Your task to perform on an android device: toggle location history Image 0: 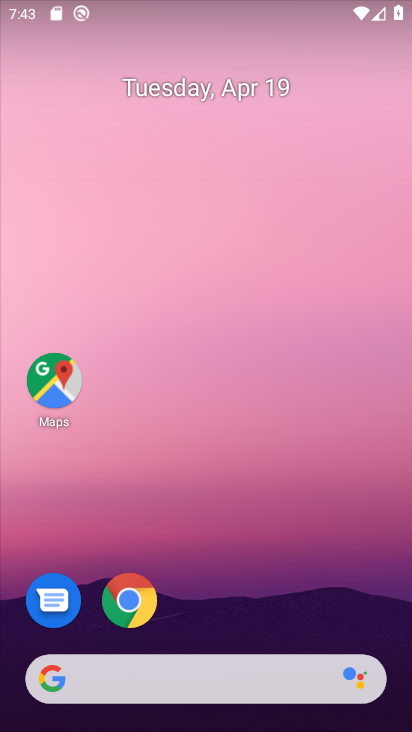
Step 0: drag from (367, 604) to (340, 80)
Your task to perform on an android device: toggle location history Image 1: 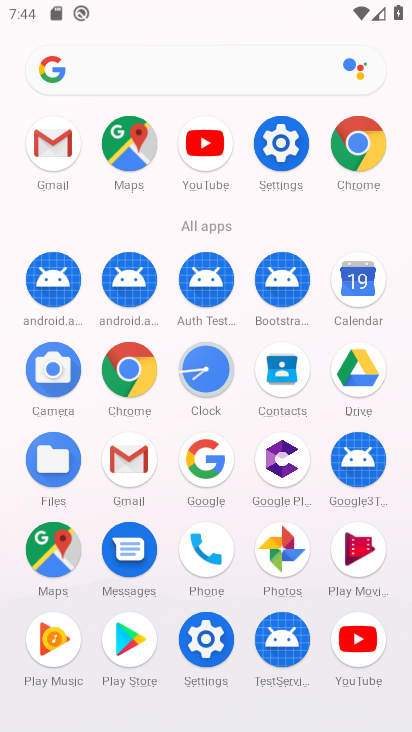
Step 1: click (289, 149)
Your task to perform on an android device: toggle location history Image 2: 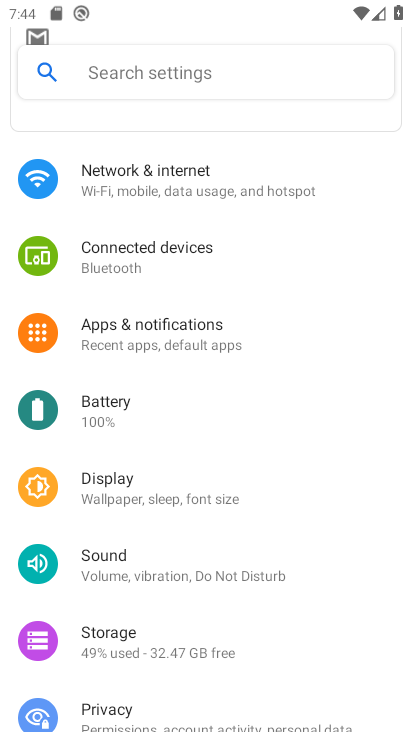
Step 2: drag from (347, 598) to (368, 373)
Your task to perform on an android device: toggle location history Image 3: 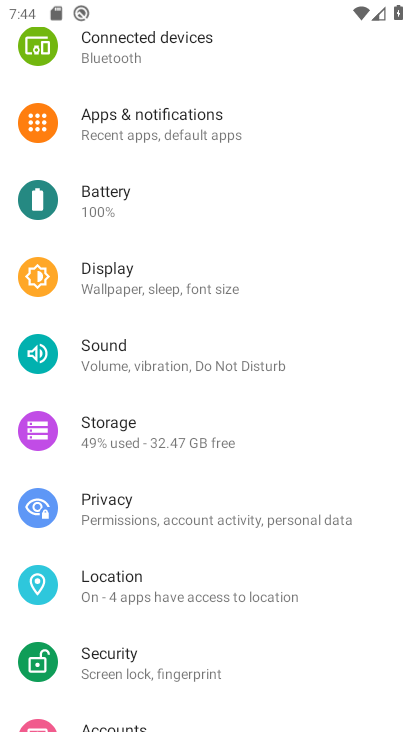
Step 3: drag from (368, 620) to (382, 405)
Your task to perform on an android device: toggle location history Image 4: 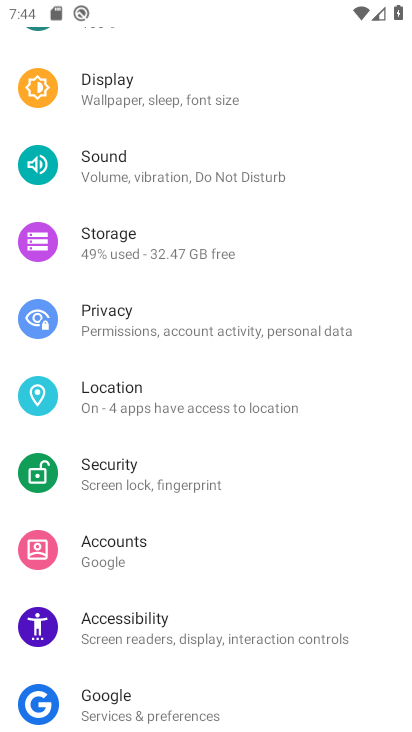
Step 4: drag from (371, 629) to (375, 401)
Your task to perform on an android device: toggle location history Image 5: 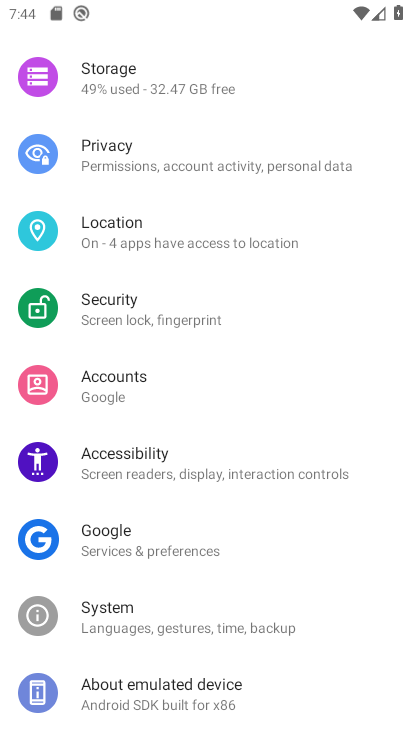
Step 5: drag from (366, 383) to (360, 564)
Your task to perform on an android device: toggle location history Image 6: 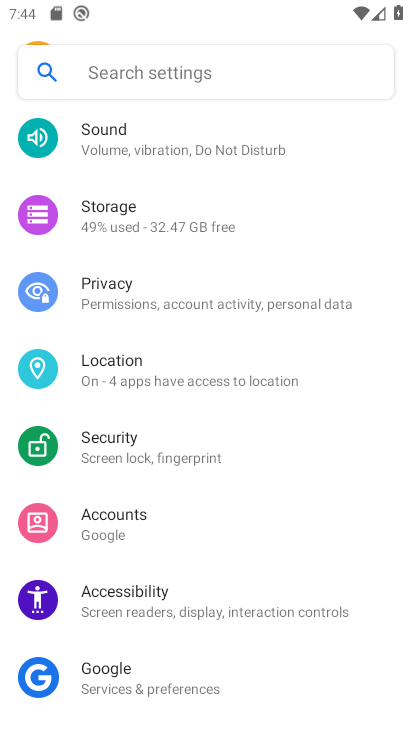
Step 6: drag from (383, 333) to (370, 515)
Your task to perform on an android device: toggle location history Image 7: 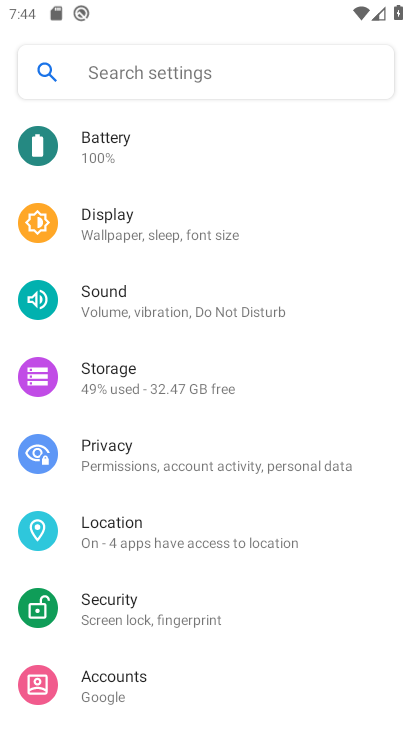
Step 7: click (141, 531)
Your task to perform on an android device: toggle location history Image 8: 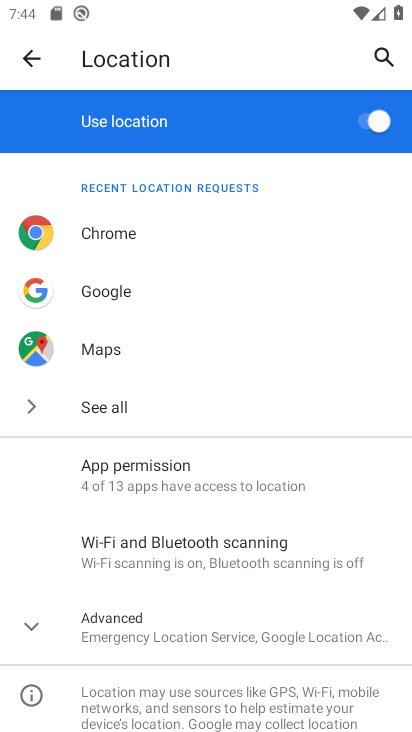
Step 8: click (190, 638)
Your task to perform on an android device: toggle location history Image 9: 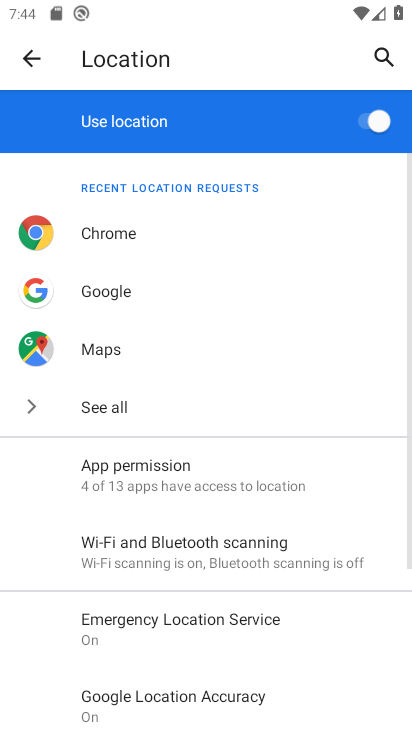
Step 9: drag from (338, 661) to (365, 411)
Your task to perform on an android device: toggle location history Image 10: 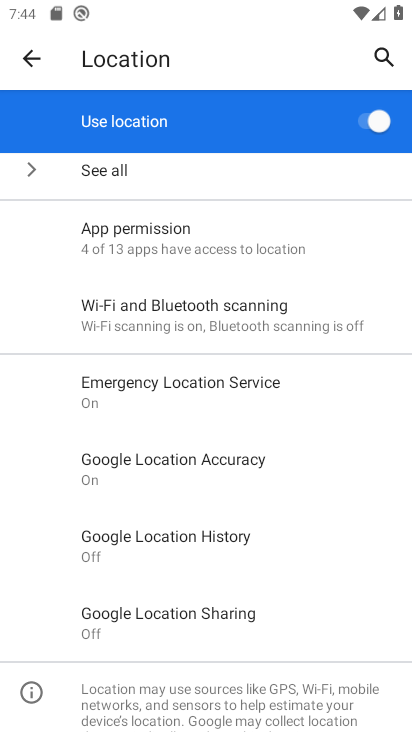
Step 10: drag from (343, 594) to (348, 422)
Your task to perform on an android device: toggle location history Image 11: 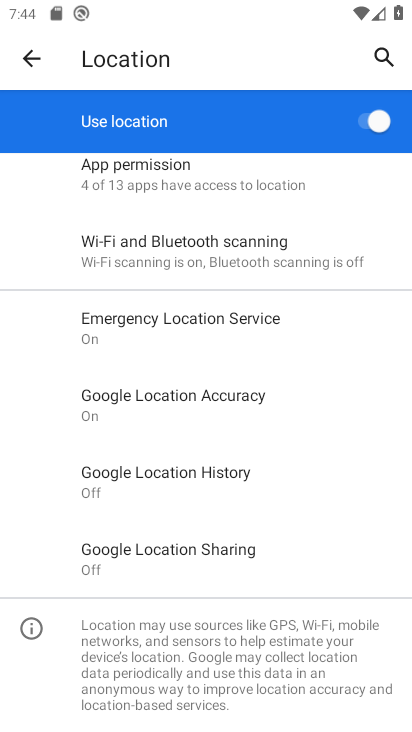
Step 11: click (177, 475)
Your task to perform on an android device: toggle location history Image 12: 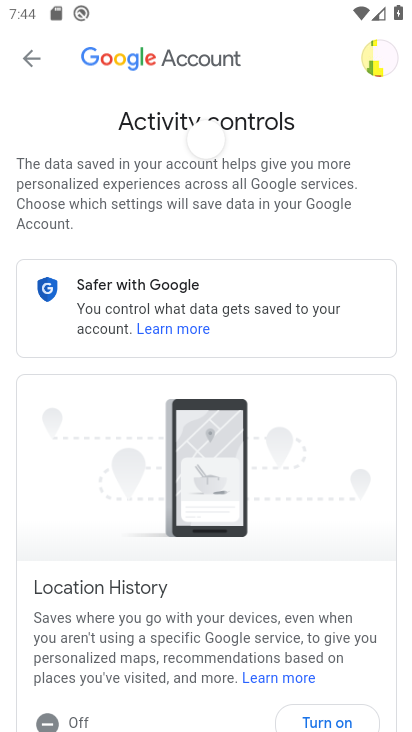
Step 12: drag from (296, 506) to (323, 286)
Your task to perform on an android device: toggle location history Image 13: 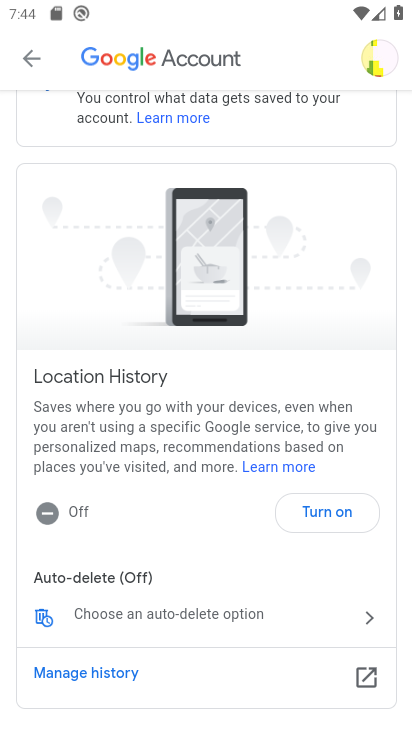
Step 13: click (324, 511)
Your task to perform on an android device: toggle location history Image 14: 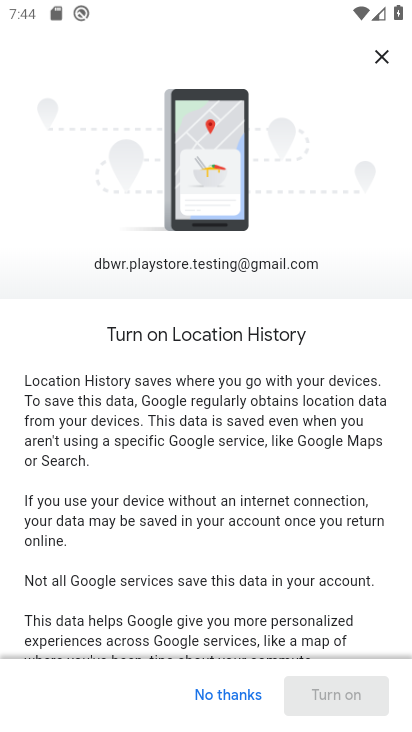
Step 14: drag from (308, 549) to (326, 403)
Your task to perform on an android device: toggle location history Image 15: 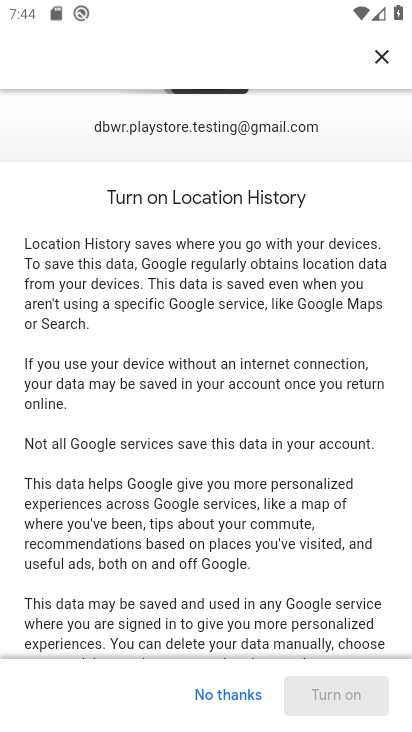
Step 15: drag from (327, 568) to (338, 349)
Your task to perform on an android device: toggle location history Image 16: 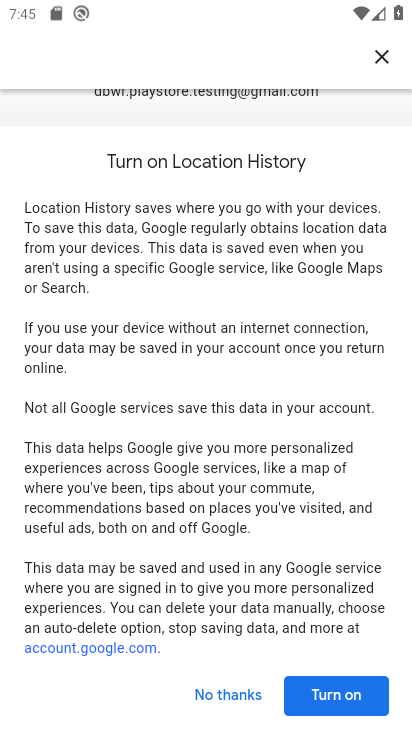
Step 16: click (326, 695)
Your task to perform on an android device: toggle location history Image 17: 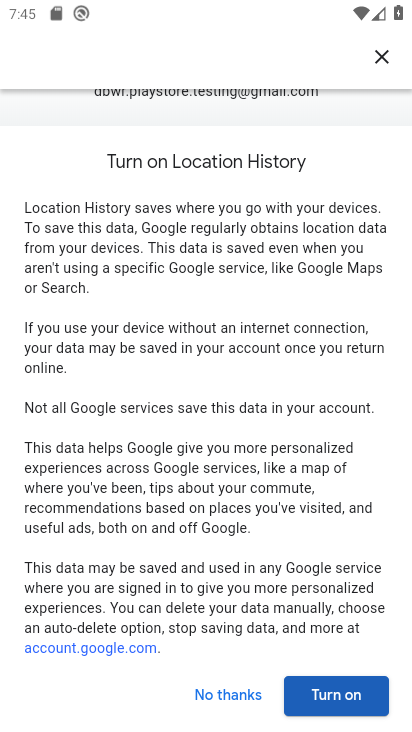
Step 17: click (313, 695)
Your task to perform on an android device: toggle location history Image 18: 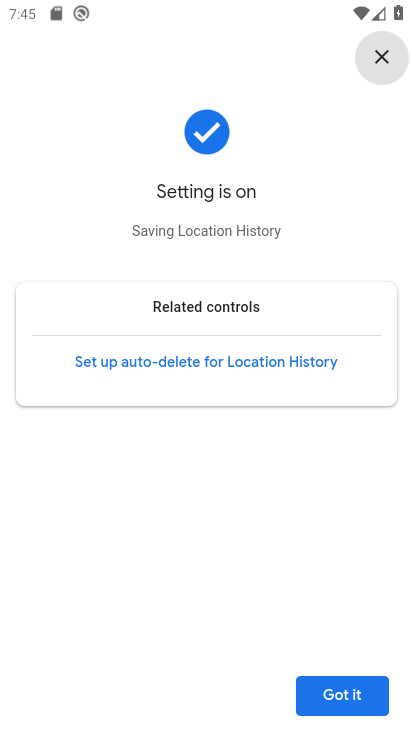
Step 18: task complete